Your task to perform on an android device: Open Amazon Image 0: 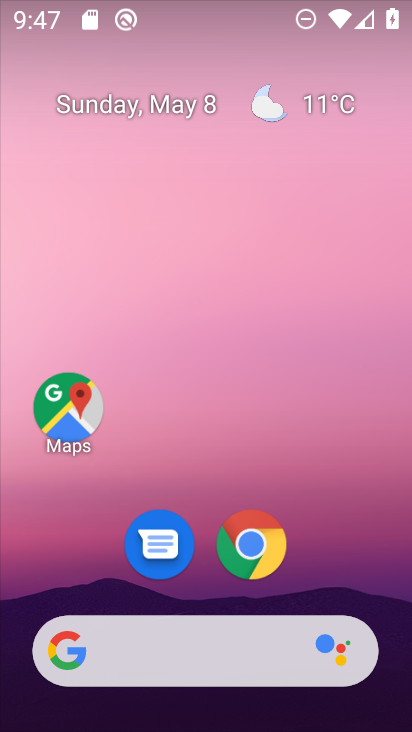
Step 0: click (242, 530)
Your task to perform on an android device: Open Amazon Image 1: 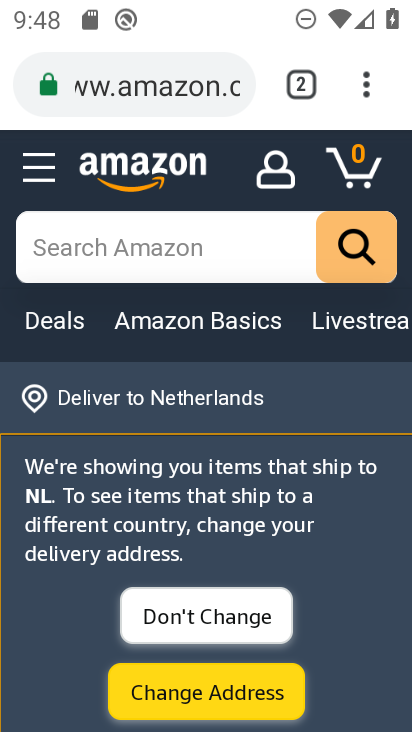
Step 1: task complete